Your task to perform on an android device: change the clock display to analog Image 0: 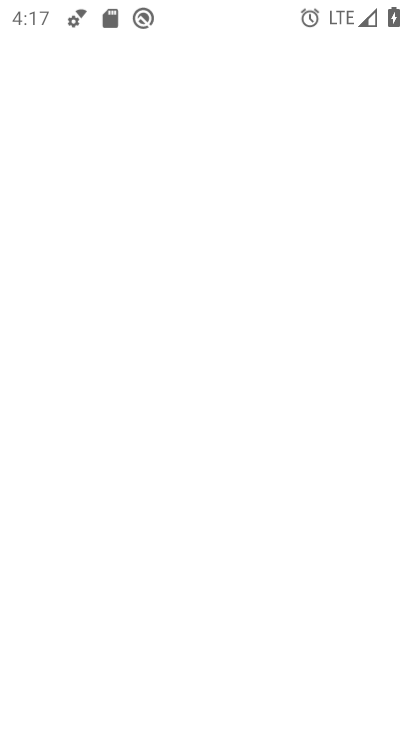
Step 0: click (236, 396)
Your task to perform on an android device: change the clock display to analog Image 1: 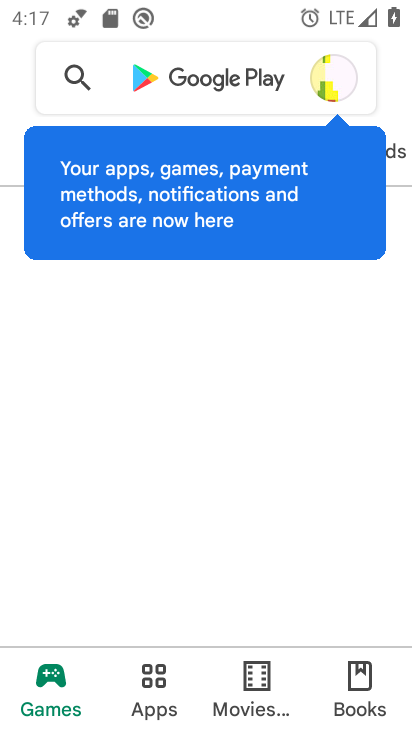
Step 1: press home button
Your task to perform on an android device: change the clock display to analog Image 2: 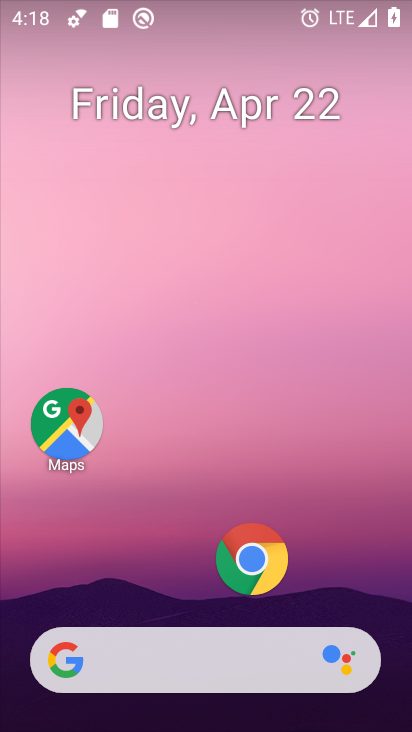
Step 2: drag from (162, 592) to (261, 173)
Your task to perform on an android device: change the clock display to analog Image 3: 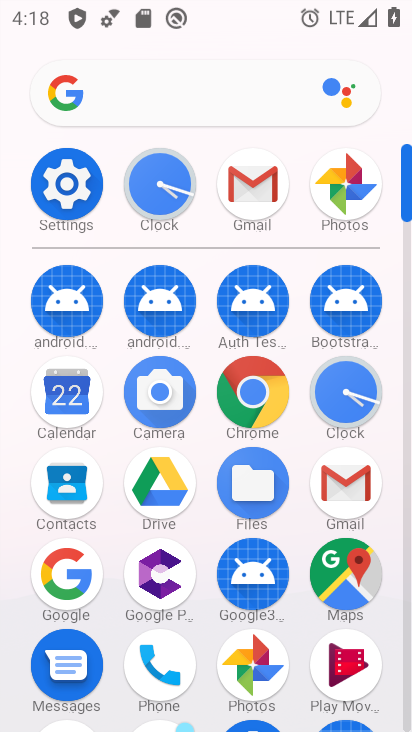
Step 3: click (337, 399)
Your task to perform on an android device: change the clock display to analog Image 4: 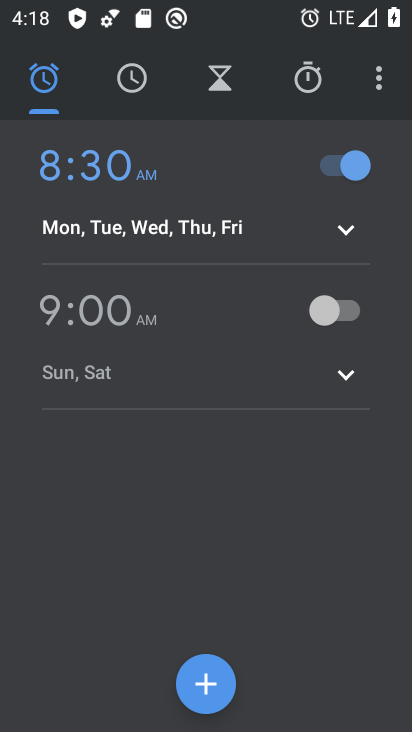
Step 4: click (384, 83)
Your task to perform on an android device: change the clock display to analog Image 5: 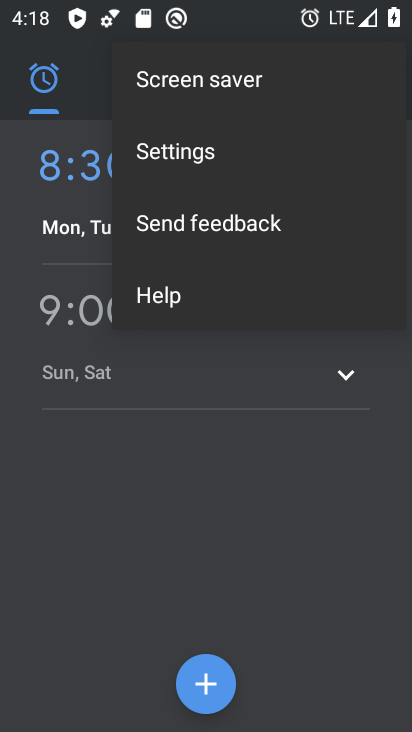
Step 5: click (219, 155)
Your task to perform on an android device: change the clock display to analog Image 6: 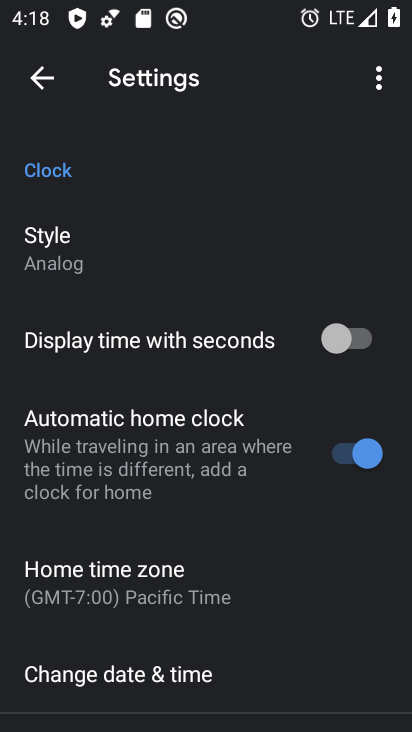
Step 6: task complete